Your task to perform on an android device: Search for "bose soundsport free" on costco.com, select the first entry, and add it to the cart. Image 0: 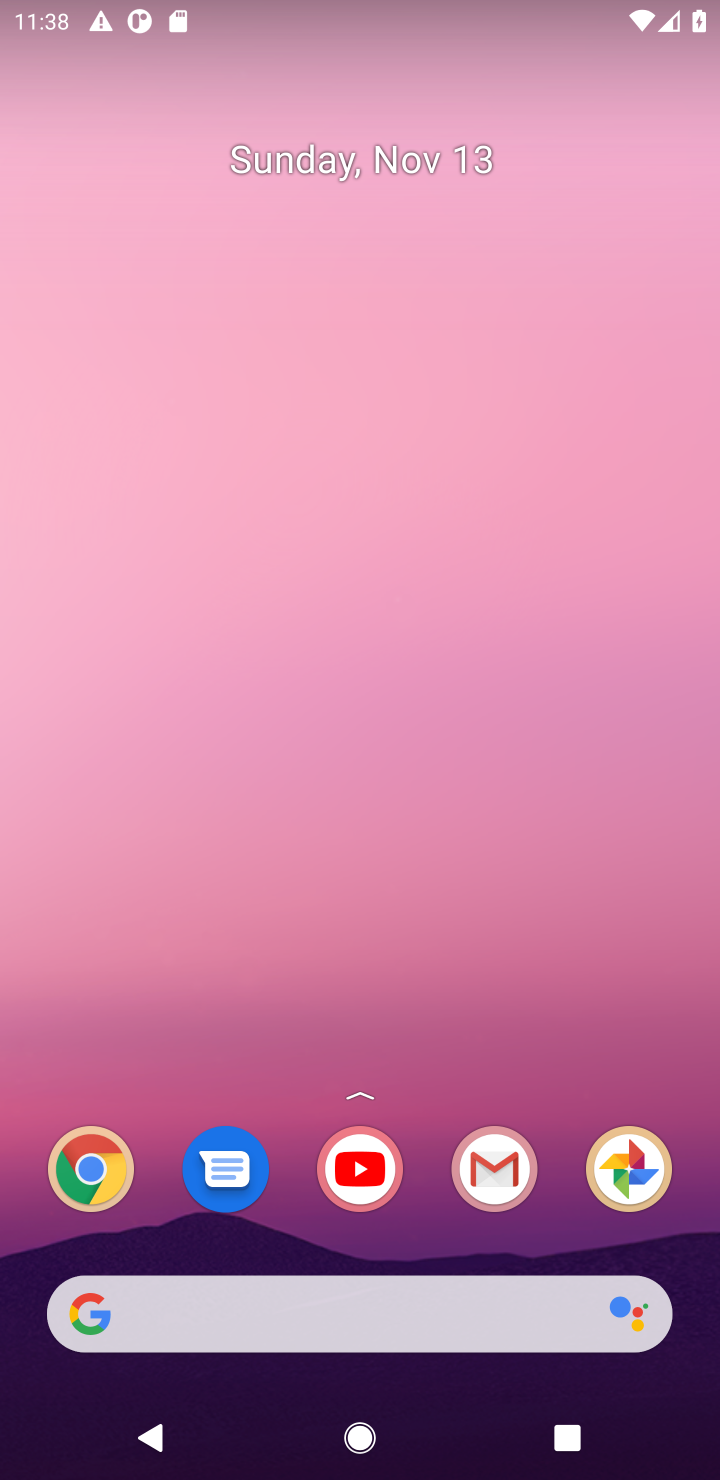
Step 0: drag from (405, 1215) to (411, 1)
Your task to perform on an android device: Search for "bose soundsport free" on costco.com, select the first entry, and add it to the cart. Image 1: 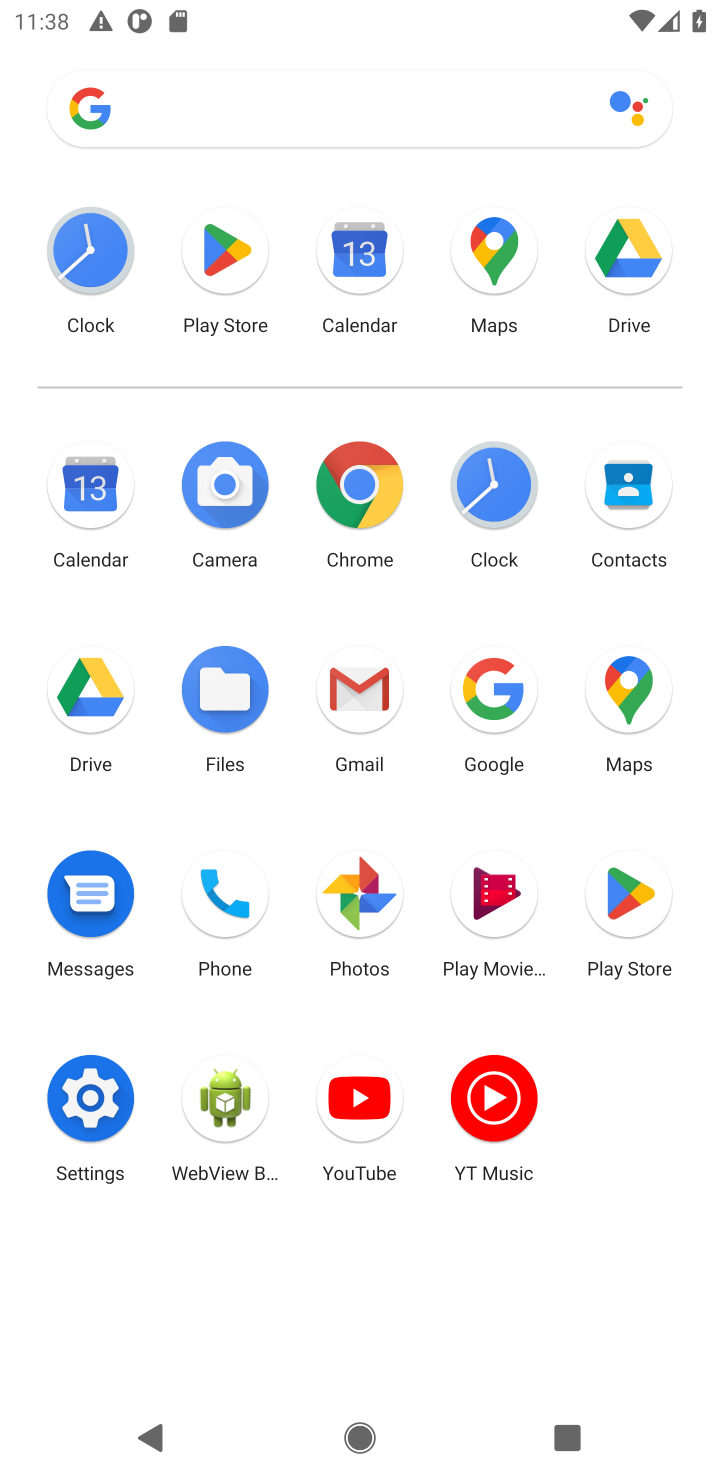
Step 1: click (362, 482)
Your task to perform on an android device: Search for "bose soundsport free" on costco.com, select the first entry, and add it to the cart. Image 2: 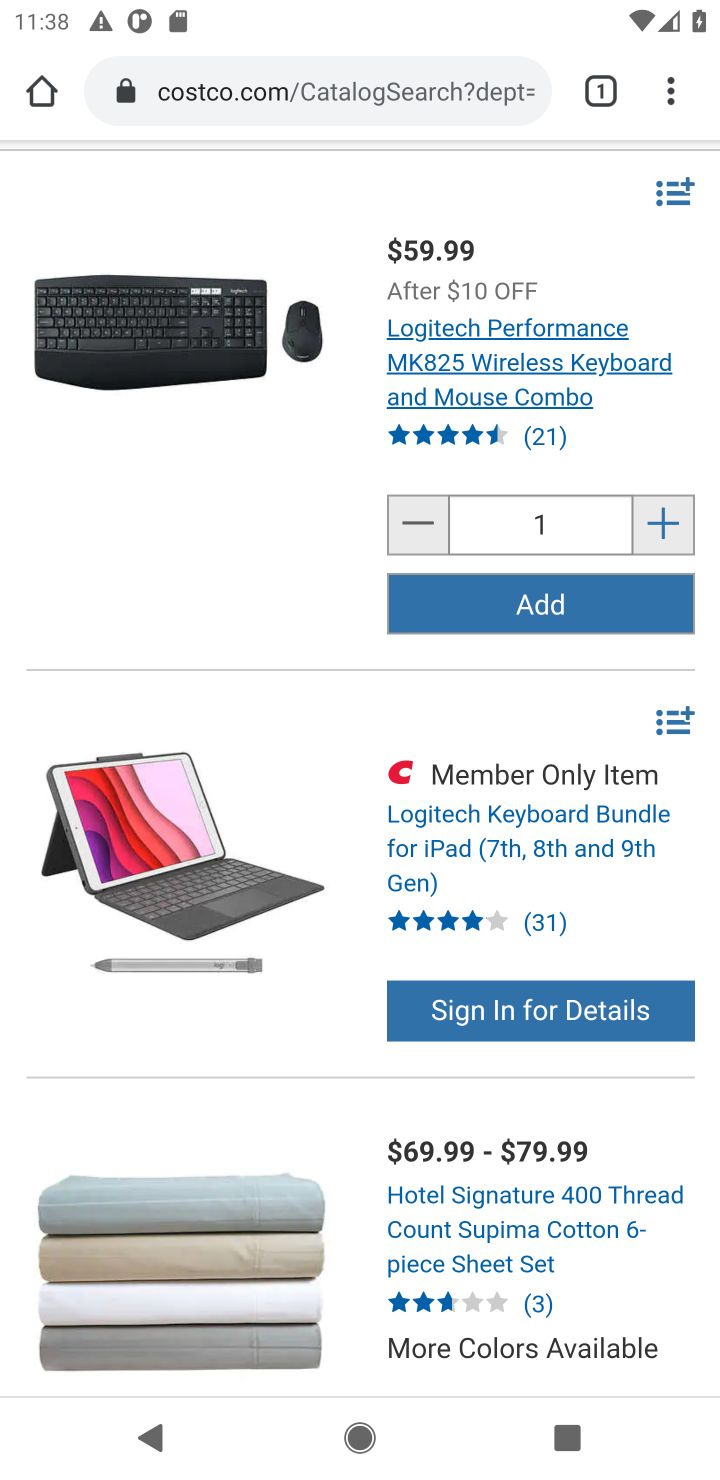
Step 2: click (343, 79)
Your task to perform on an android device: Search for "bose soundsport free" on costco.com, select the first entry, and add it to the cart. Image 3: 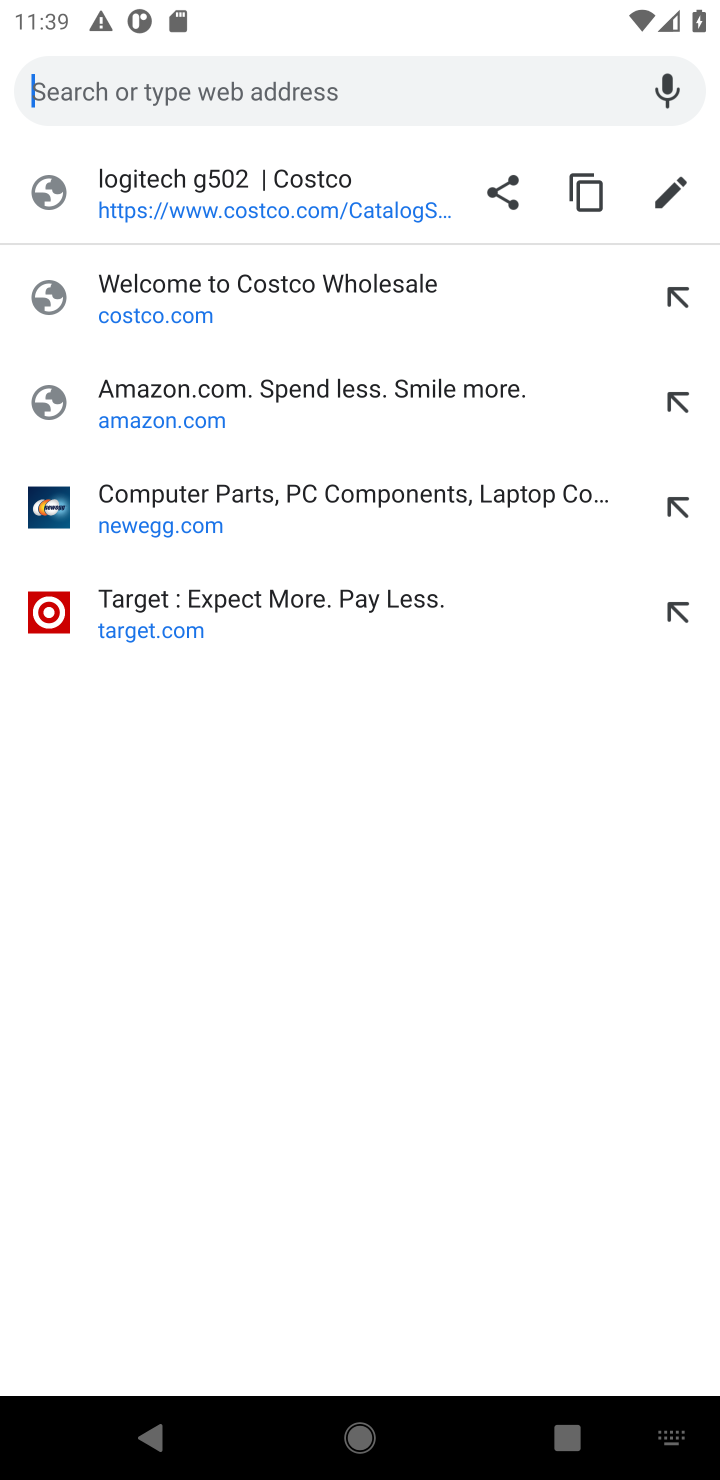
Step 3: type "costco.com"
Your task to perform on an android device: Search for "bose soundsport free" on costco.com, select the first entry, and add it to the cart. Image 4: 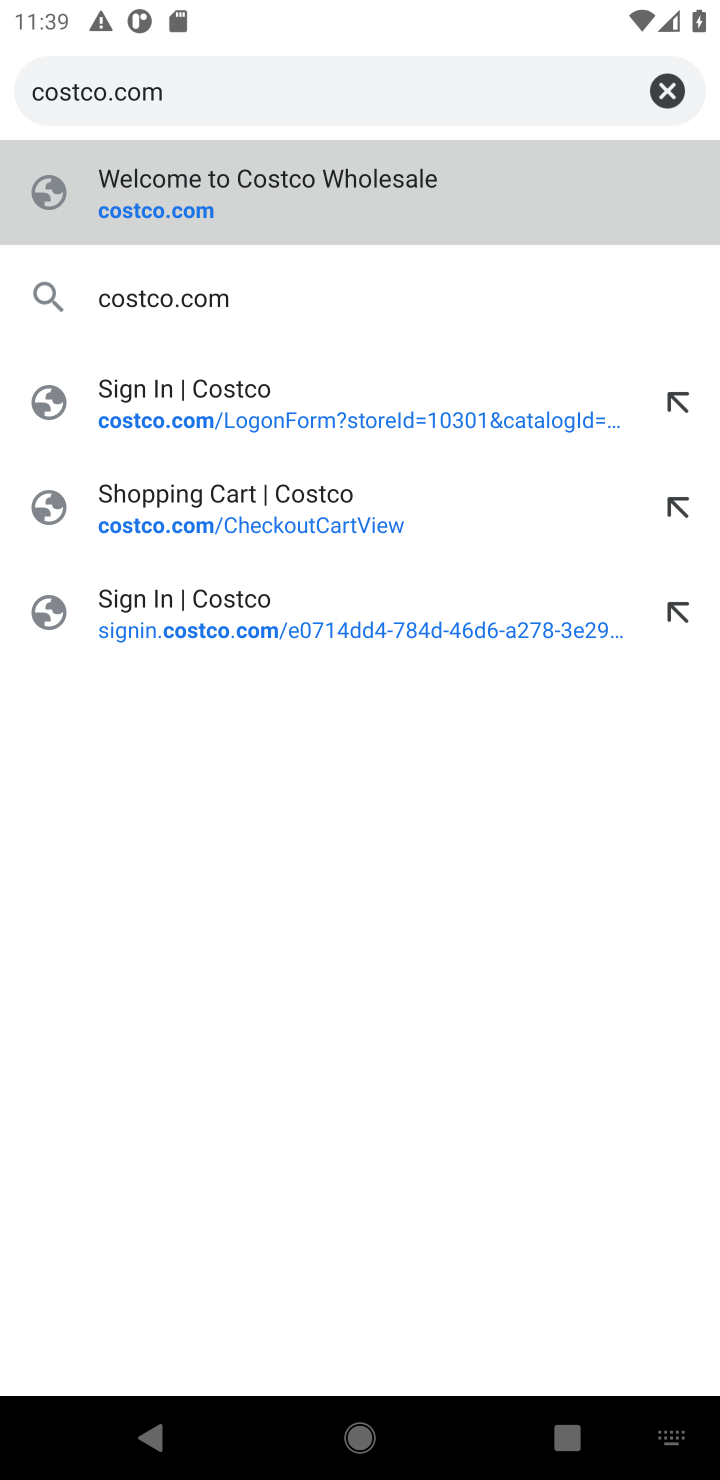
Step 4: press enter
Your task to perform on an android device: Search for "bose soundsport free" on costco.com, select the first entry, and add it to the cart. Image 5: 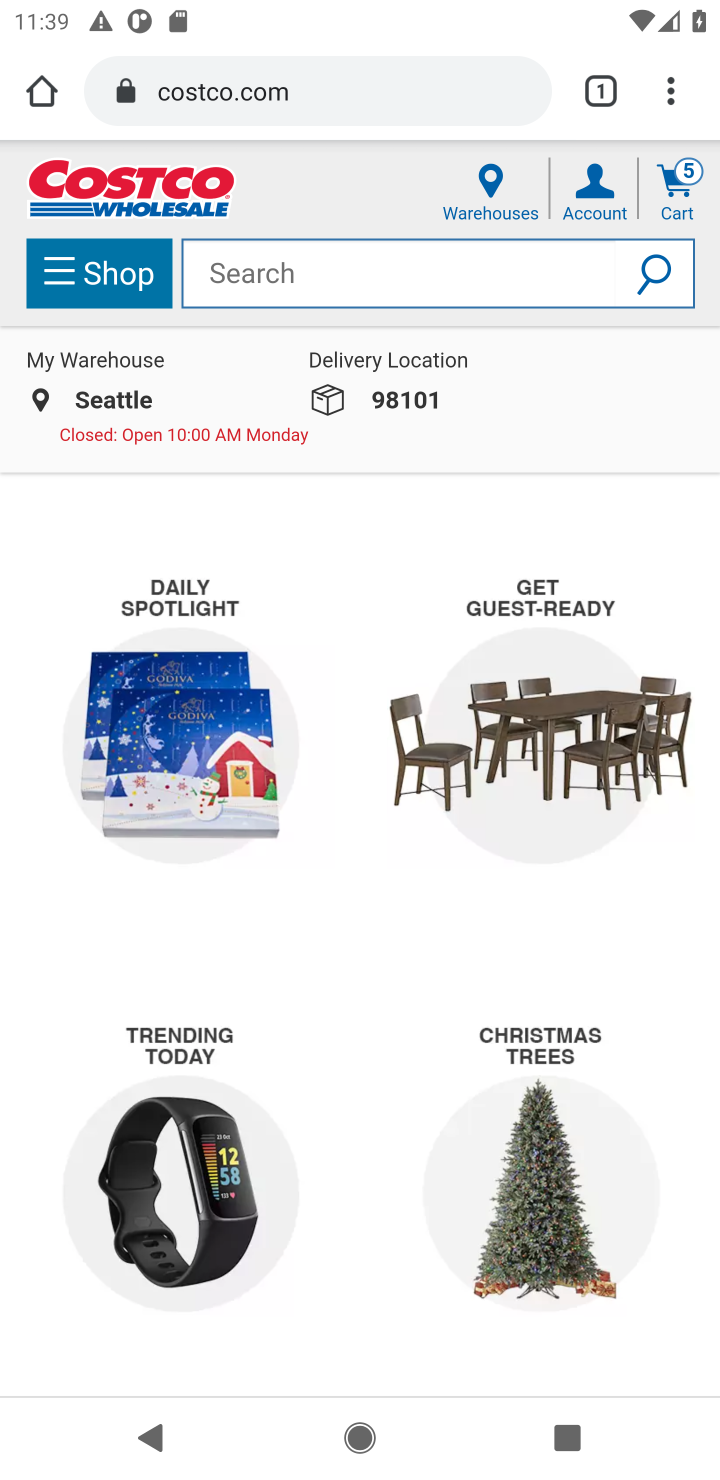
Step 5: click (351, 281)
Your task to perform on an android device: Search for "bose soundsport free" on costco.com, select the first entry, and add it to the cart. Image 6: 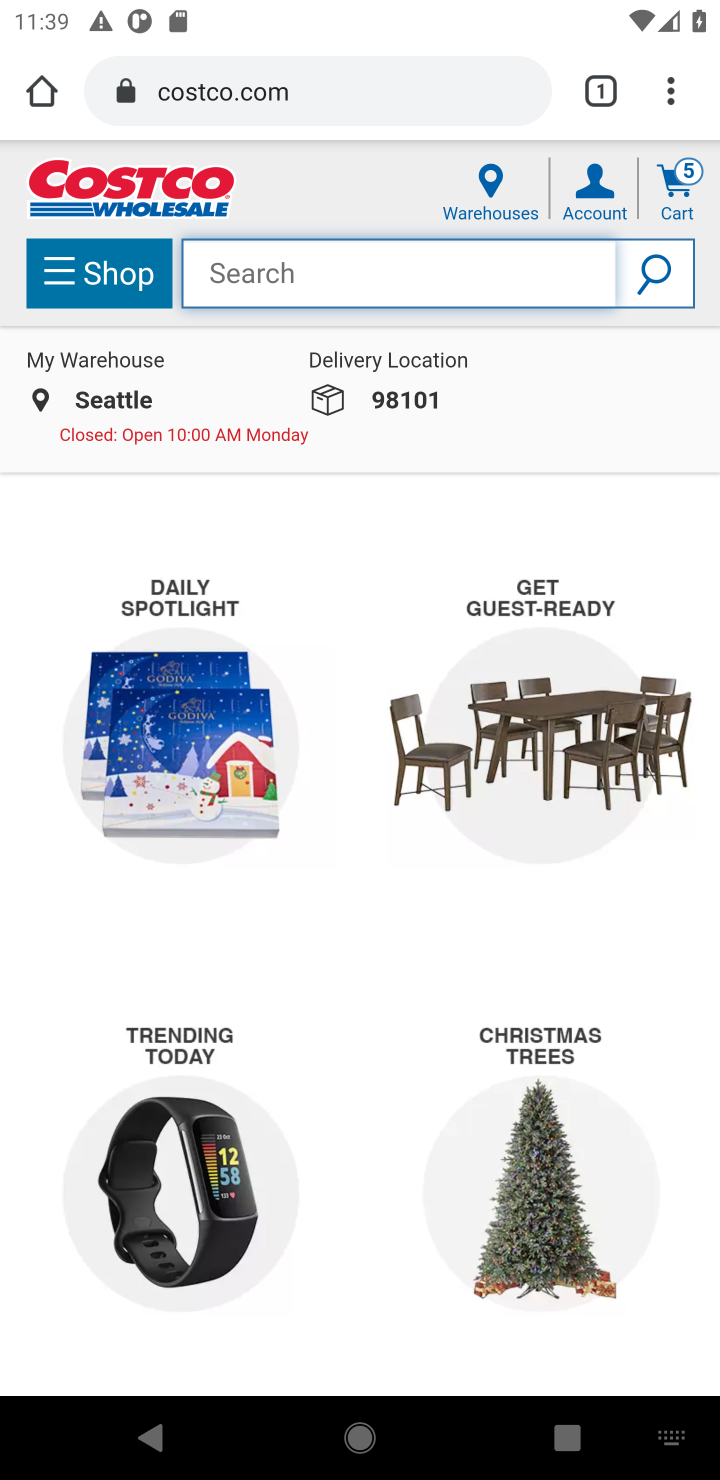
Step 6: type "bose soundsport free"
Your task to perform on an android device: Search for "bose soundsport free" on costco.com, select the first entry, and add it to the cart. Image 7: 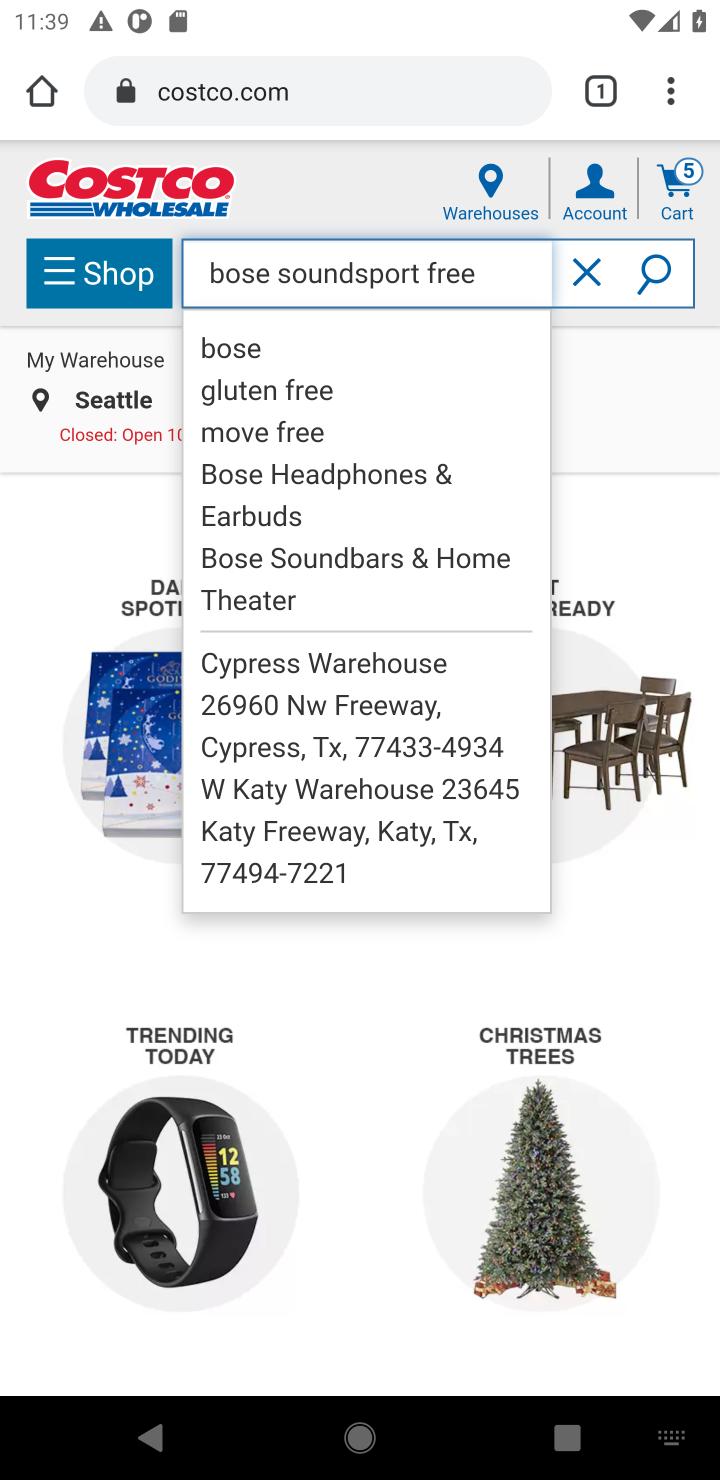
Step 7: press enter
Your task to perform on an android device: Search for "bose soundsport free" on costco.com, select the first entry, and add it to the cart. Image 8: 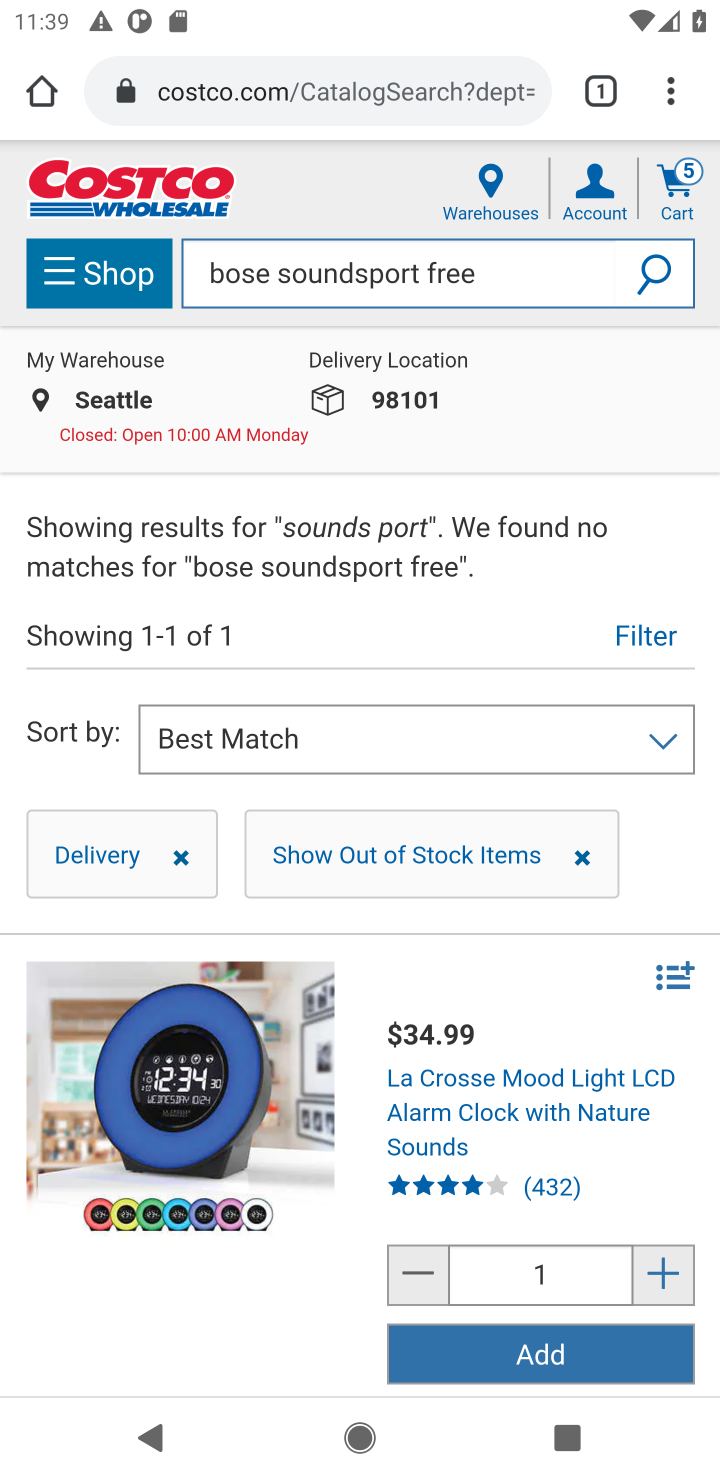
Step 8: task complete